Your task to perform on an android device: change text size in settings app Image 0: 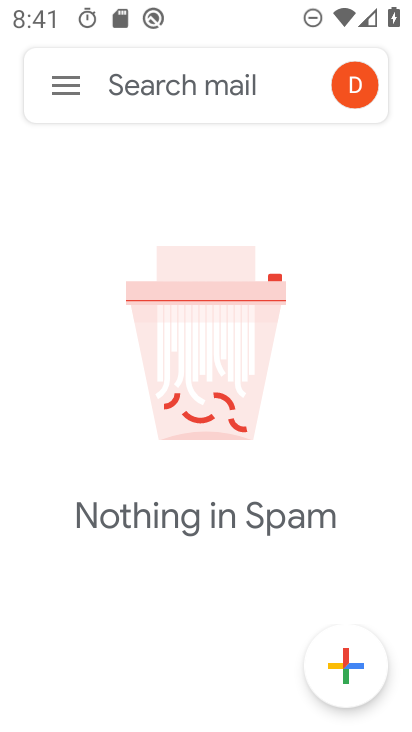
Step 0: press home button
Your task to perform on an android device: change text size in settings app Image 1: 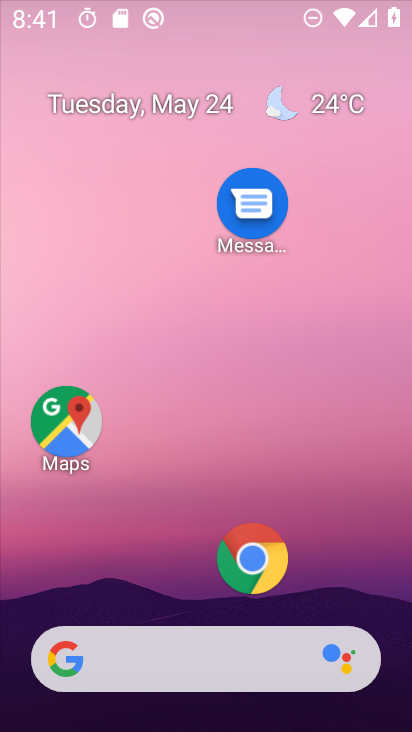
Step 1: drag from (193, 593) to (154, 231)
Your task to perform on an android device: change text size in settings app Image 2: 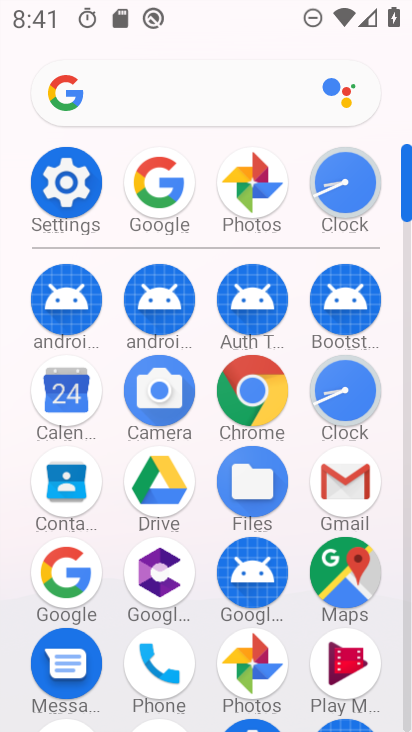
Step 2: click (70, 175)
Your task to perform on an android device: change text size in settings app Image 3: 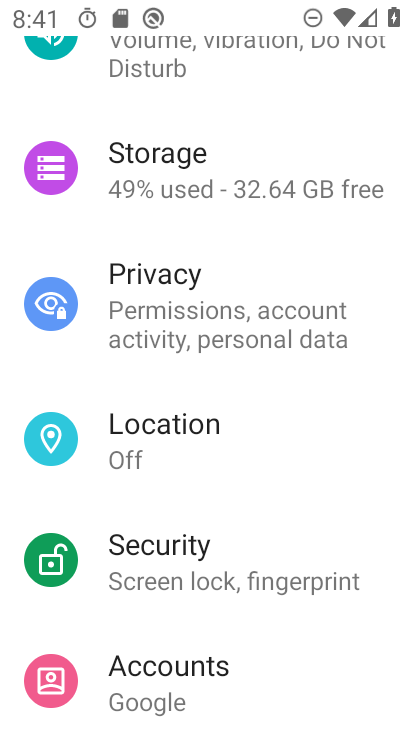
Step 3: drag from (204, 190) to (228, 610)
Your task to perform on an android device: change text size in settings app Image 4: 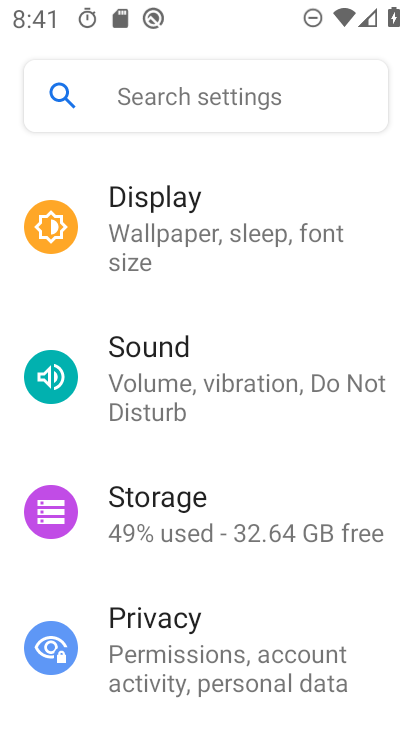
Step 4: click (180, 252)
Your task to perform on an android device: change text size in settings app Image 5: 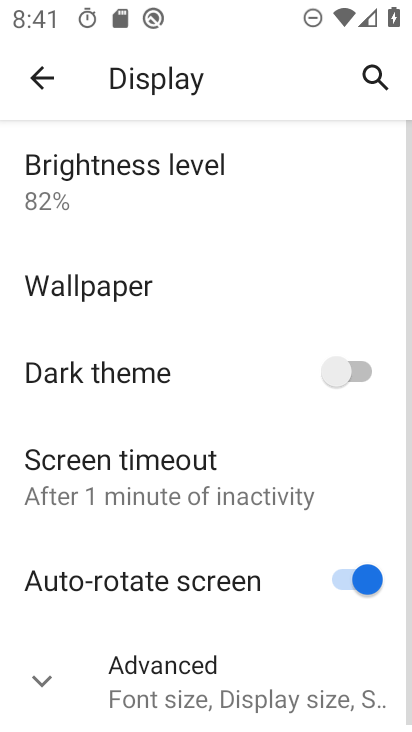
Step 5: click (164, 661)
Your task to perform on an android device: change text size in settings app Image 6: 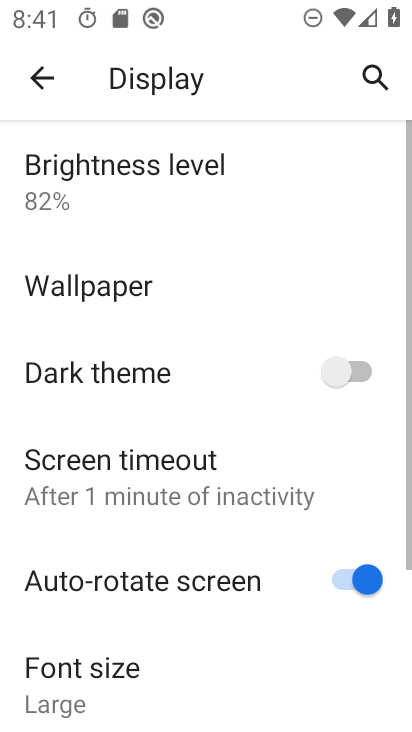
Step 6: click (169, 659)
Your task to perform on an android device: change text size in settings app Image 7: 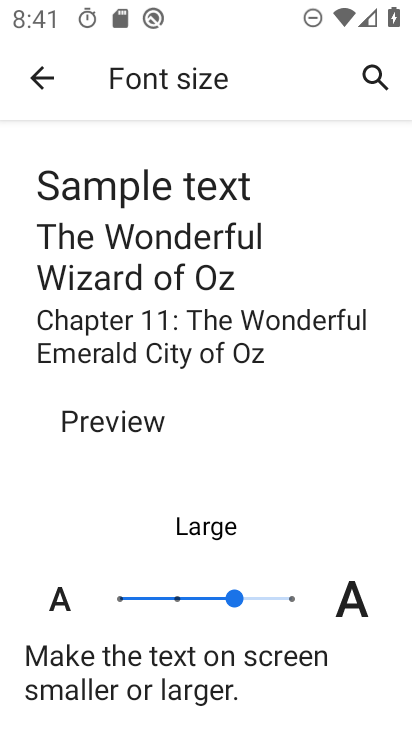
Step 7: click (119, 597)
Your task to perform on an android device: change text size in settings app Image 8: 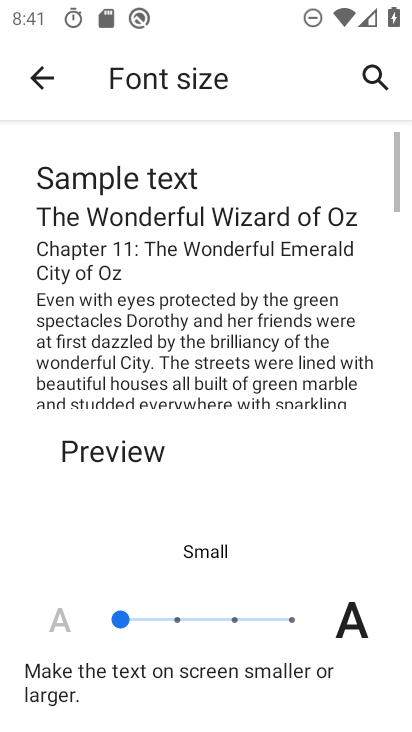
Step 8: task complete